Your task to perform on an android device: open chrome and create a bookmark for the current page Image 0: 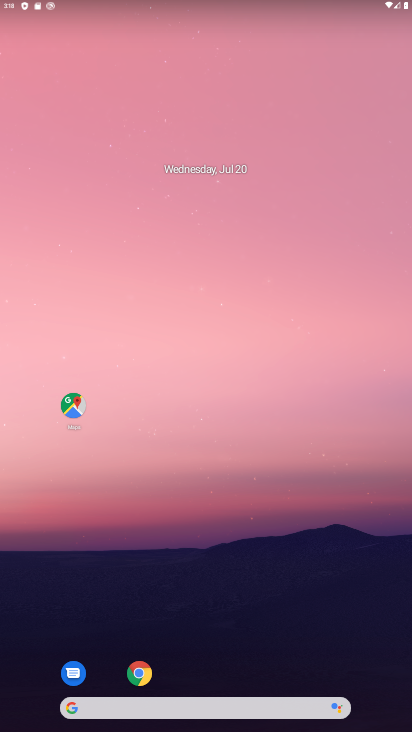
Step 0: drag from (301, 669) to (234, 259)
Your task to perform on an android device: open chrome and create a bookmark for the current page Image 1: 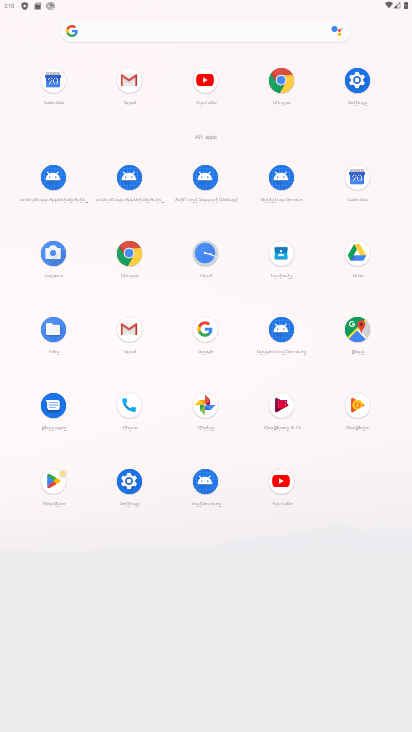
Step 1: click (286, 79)
Your task to perform on an android device: open chrome and create a bookmark for the current page Image 2: 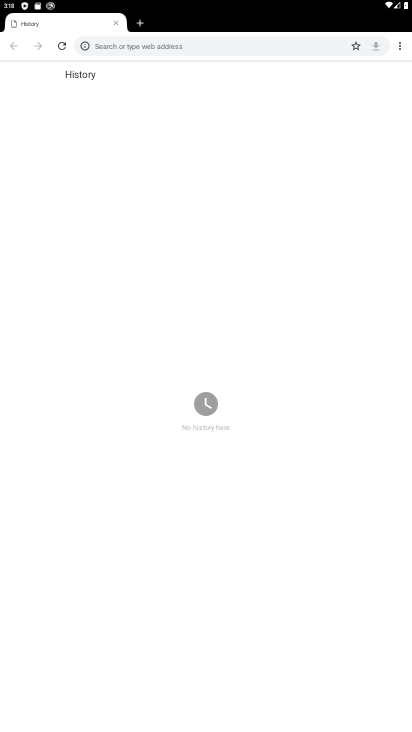
Step 2: task complete